Your task to perform on an android device: Clear the cart on ebay. Search for logitech g910 on ebay, select the first entry, and add it to the cart. Image 0: 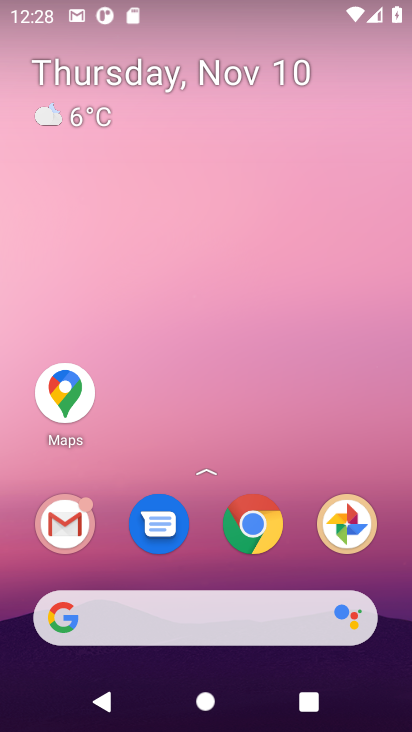
Step 0: click (163, 608)
Your task to perform on an android device: Clear the cart on ebay. Search for logitech g910 on ebay, select the first entry, and add it to the cart. Image 1: 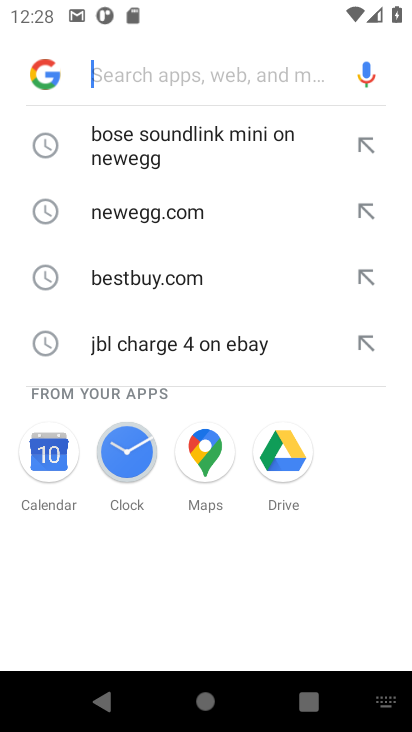
Step 1: type "logitech g910 on ebay"
Your task to perform on an android device: Clear the cart on ebay. Search for logitech g910 on ebay, select the first entry, and add it to the cart. Image 2: 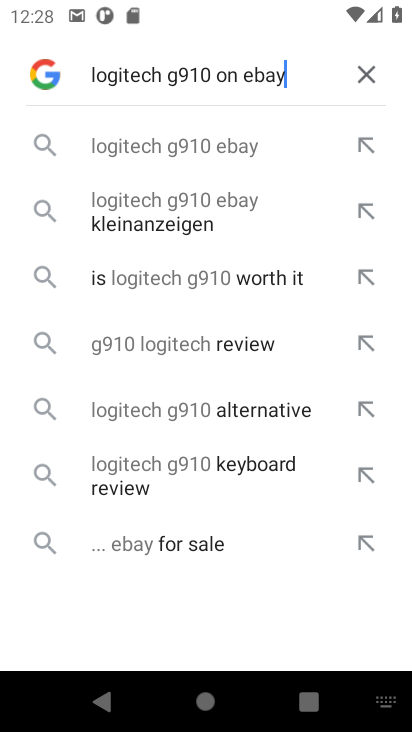
Step 2: click (214, 147)
Your task to perform on an android device: Clear the cart on ebay. Search for logitech g910 on ebay, select the first entry, and add it to the cart. Image 3: 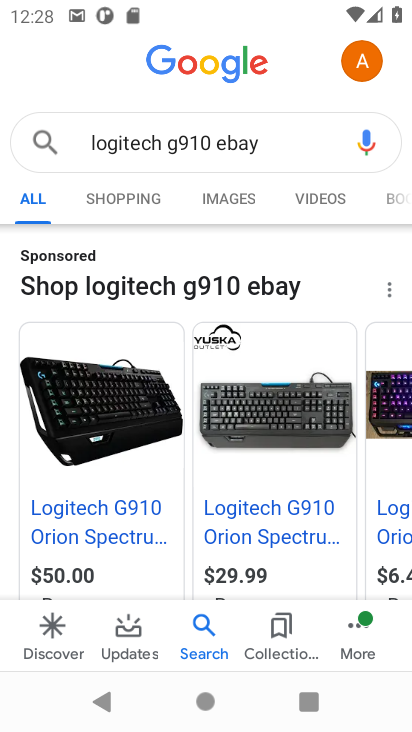
Step 3: drag from (151, 470) to (216, 260)
Your task to perform on an android device: Clear the cart on ebay. Search for logitech g910 on ebay, select the first entry, and add it to the cart. Image 4: 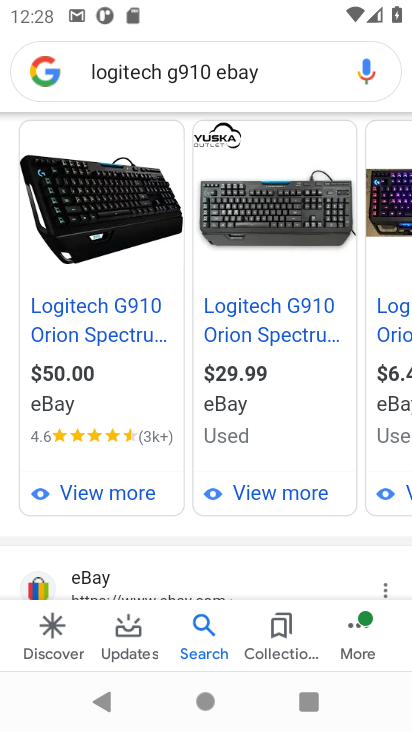
Step 4: click (90, 305)
Your task to perform on an android device: Clear the cart on ebay. Search for logitech g910 on ebay, select the first entry, and add it to the cart. Image 5: 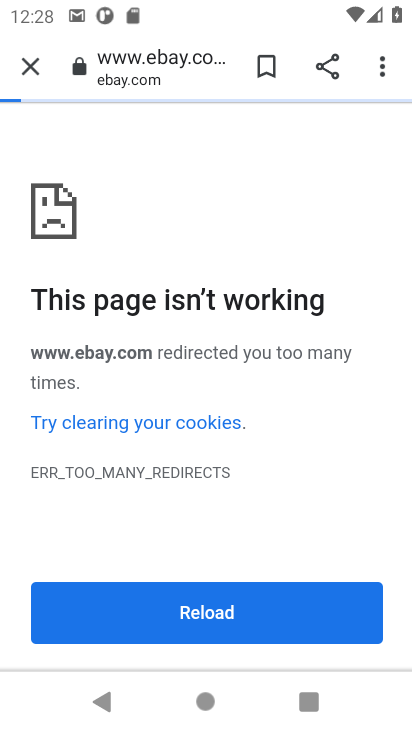
Step 5: task complete